Your task to perform on an android device: Open Google Chrome and open the bookmarks view Image 0: 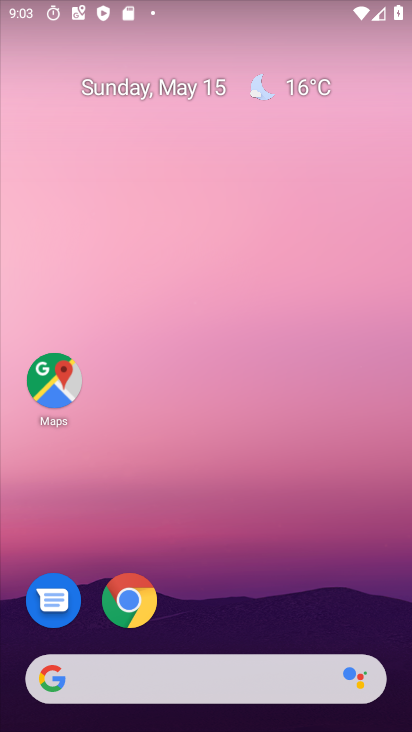
Step 0: click (125, 605)
Your task to perform on an android device: Open Google Chrome and open the bookmarks view Image 1: 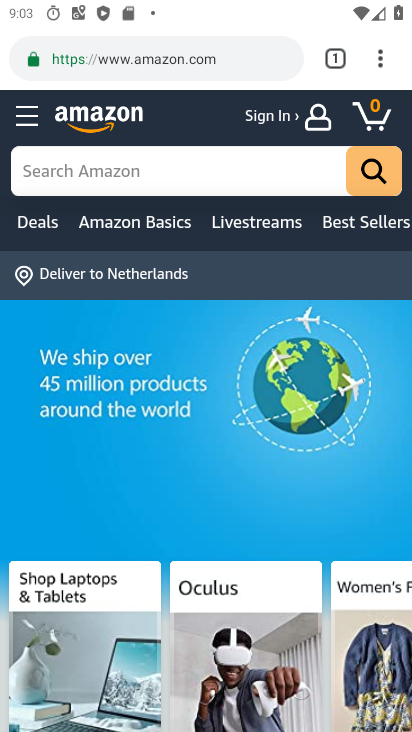
Step 1: click (375, 61)
Your task to perform on an android device: Open Google Chrome and open the bookmarks view Image 2: 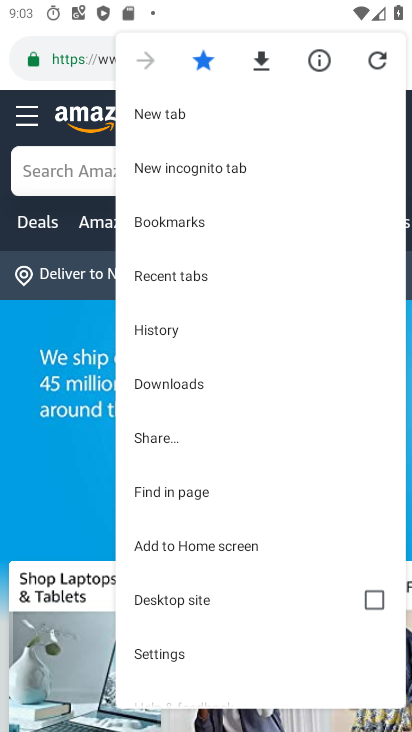
Step 2: drag from (174, 648) to (274, 116)
Your task to perform on an android device: Open Google Chrome and open the bookmarks view Image 3: 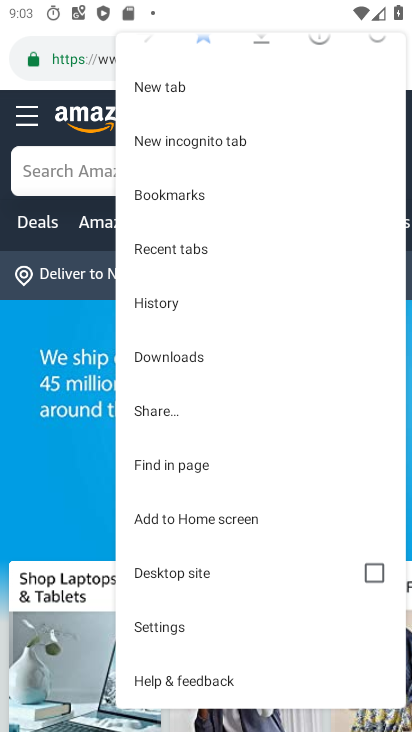
Step 3: click (181, 199)
Your task to perform on an android device: Open Google Chrome and open the bookmarks view Image 4: 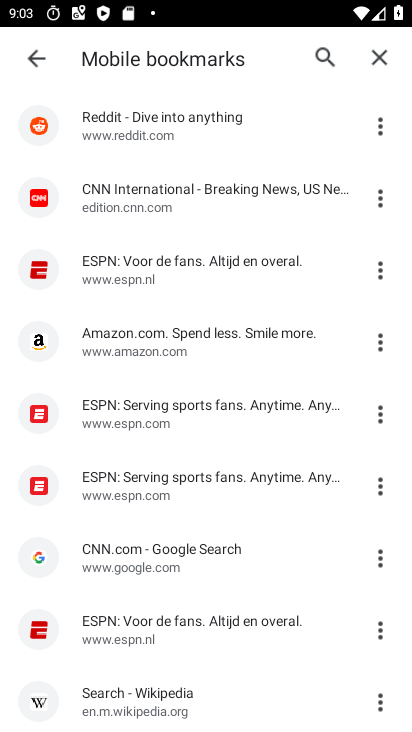
Step 4: click (143, 358)
Your task to perform on an android device: Open Google Chrome and open the bookmarks view Image 5: 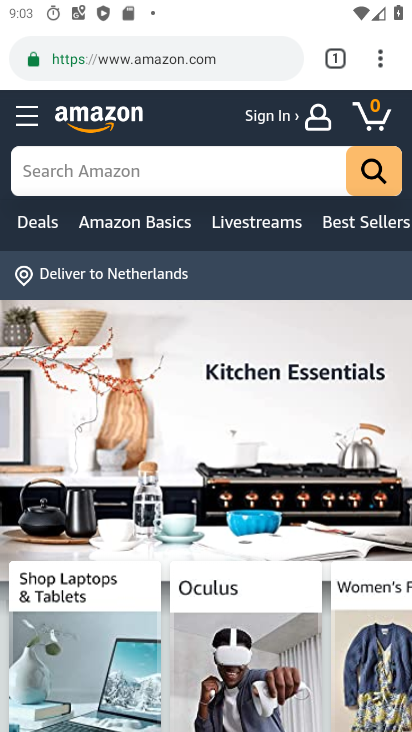
Step 5: task complete